Your task to perform on an android device: What's on my calendar today? Image 0: 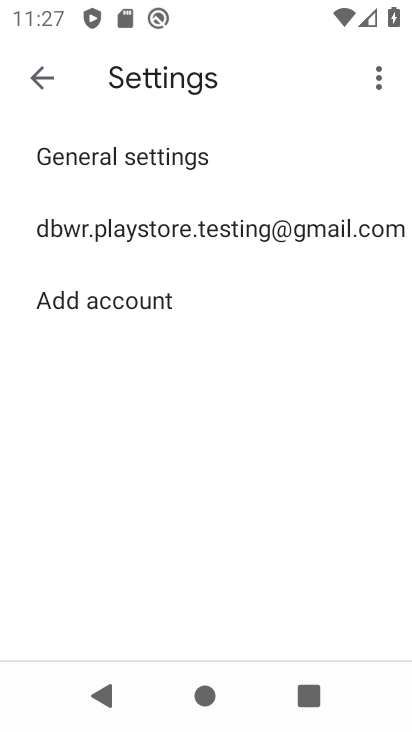
Step 0: press home button
Your task to perform on an android device: What's on my calendar today? Image 1: 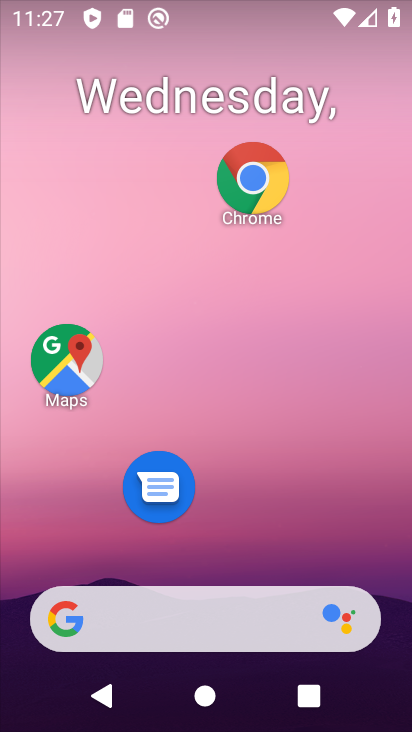
Step 1: drag from (300, 304) to (297, 44)
Your task to perform on an android device: What's on my calendar today? Image 2: 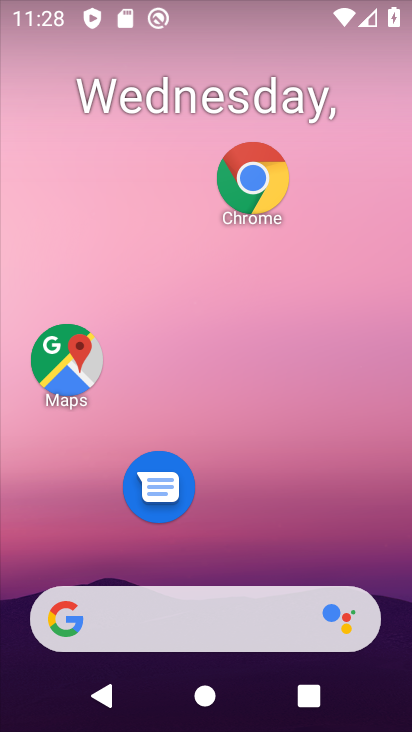
Step 2: drag from (273, 404) to (221, 4)
Your task to perform on an android device: What's on my calendar today? Image 3: 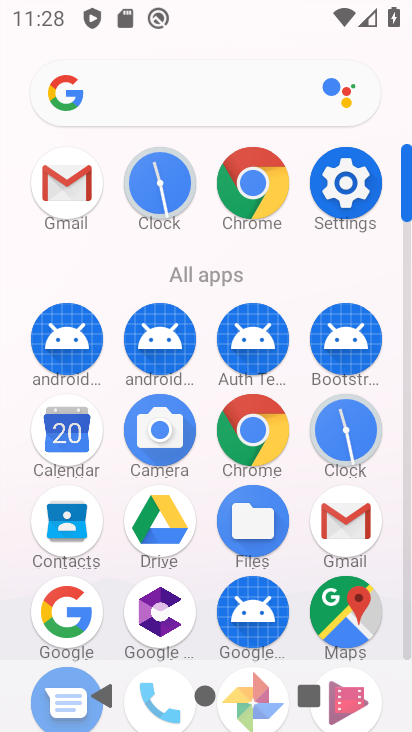
Step 3: click (71, 437)
Your task to perform on an android device: What's on my calendar today? Image 4: 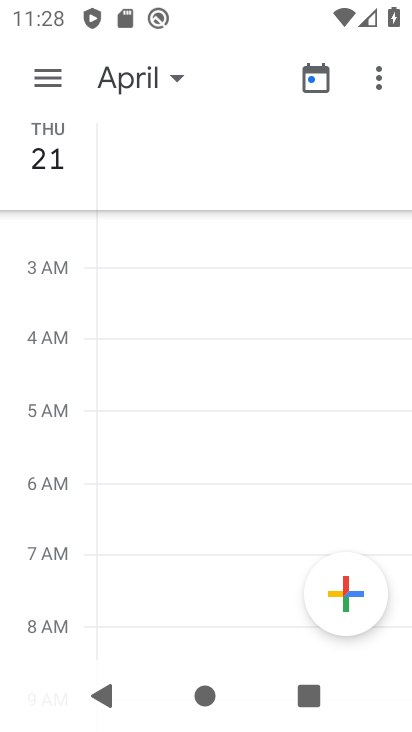
Step 4: click (45, 74)
Your task to perform on an android device: What's on my calendar today? Image 5: 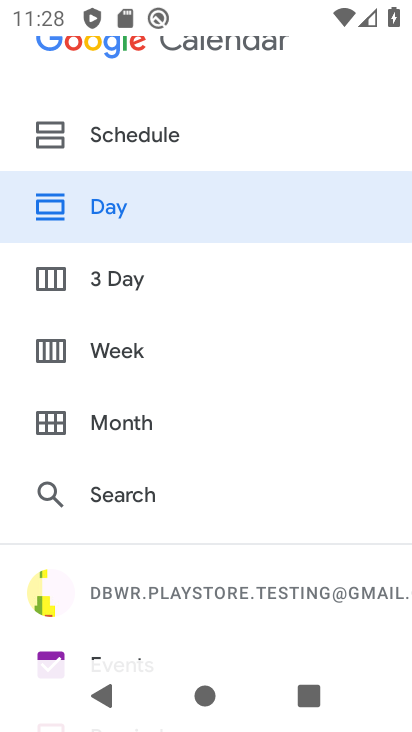
Step 5: click (123, 135)
Your task to perform on an android device: What's on my calendar today? Image 6: 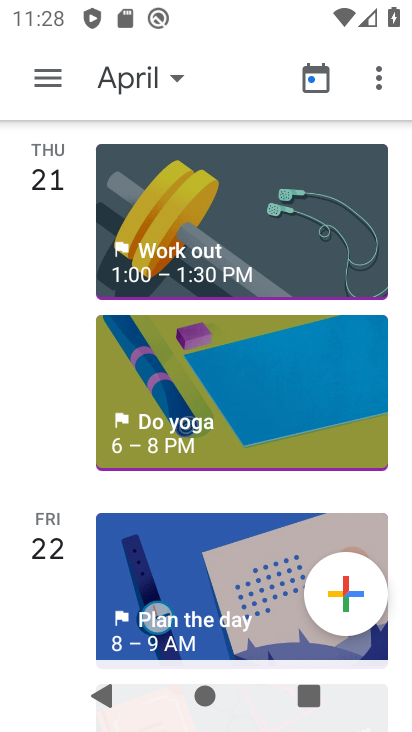
Step 6: drag from (247, 277) to (237, 364)
Your task to perform on an android device: What's on my calendar today? Image 7: 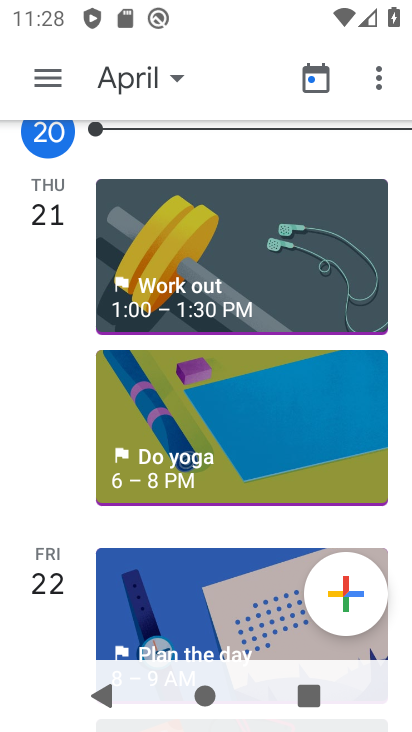
Step 7: click (50, 76)
Your task to perform on an android device: What's on my calendar today? Image 8: 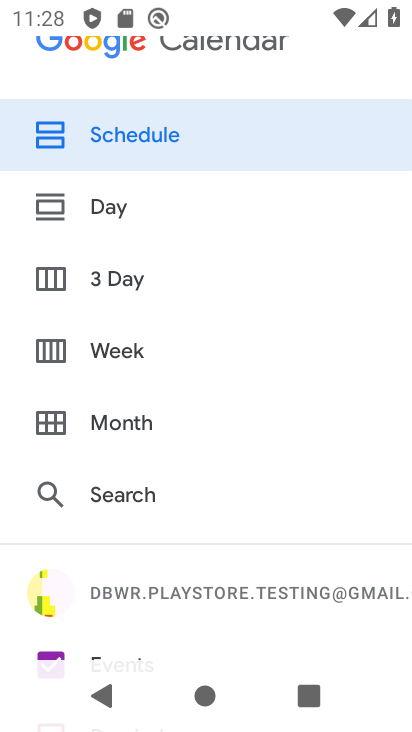
Step 8: drag from (166, 612) to (183, 109)
Your task to perform on an android device: What's on my calendar today? Image 9: 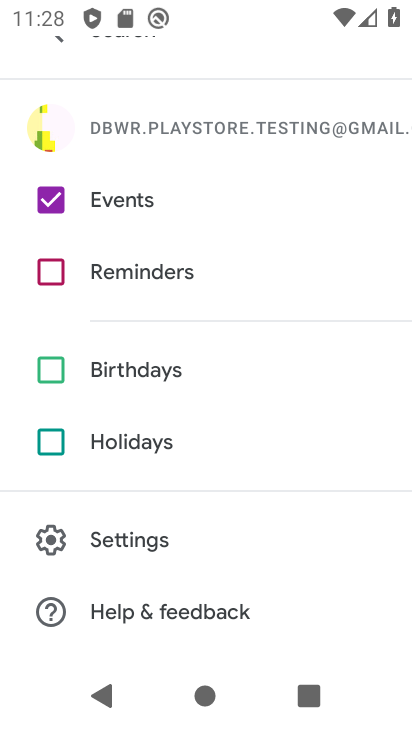
Step 9: click (63, 263)
Your task to perform on an android device: What's on my calendar today? Image 10: 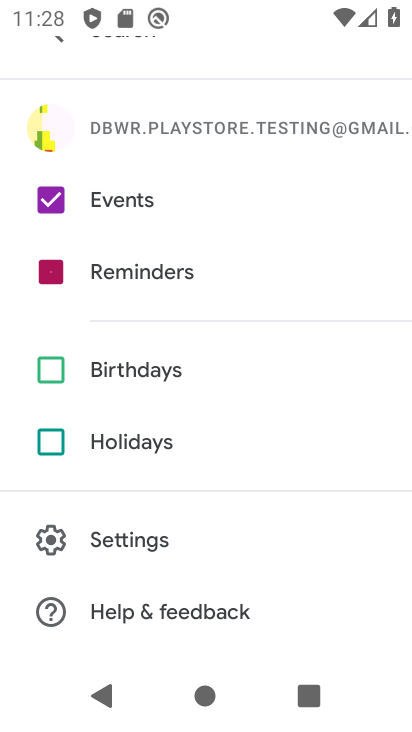
Step 10: click (51, 366)
Your task to perform on an android device: What's on my calendar today? Image 11: 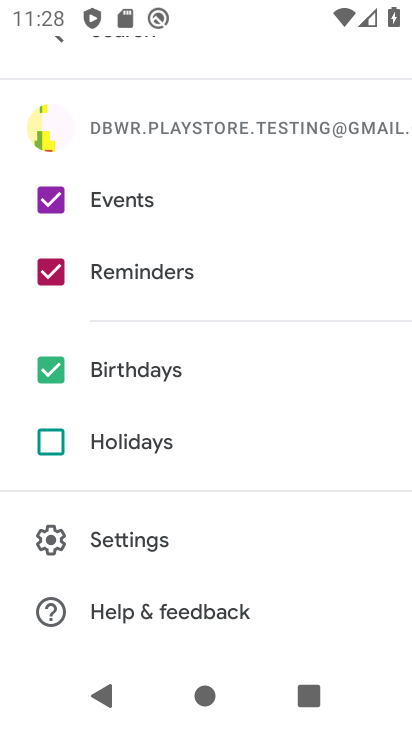
Step 11: click (54, 440)
Your task to perform on an android device: What's on my calendar today? Image 12: 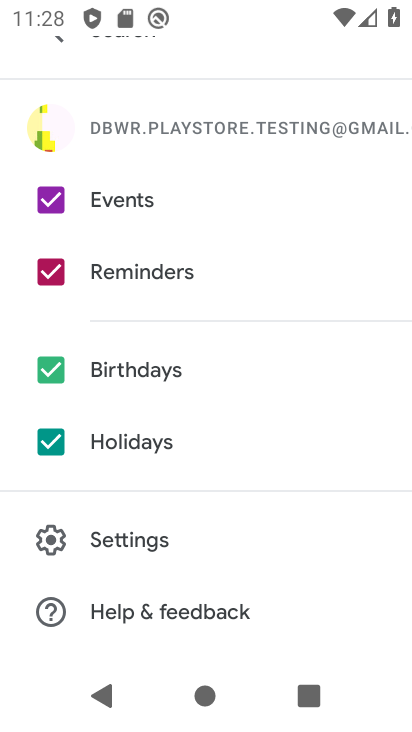
Step 12: drag from (252, 178) to (239, 588)
Your task to perform on an android device: What's on my calendar today? Image 13: 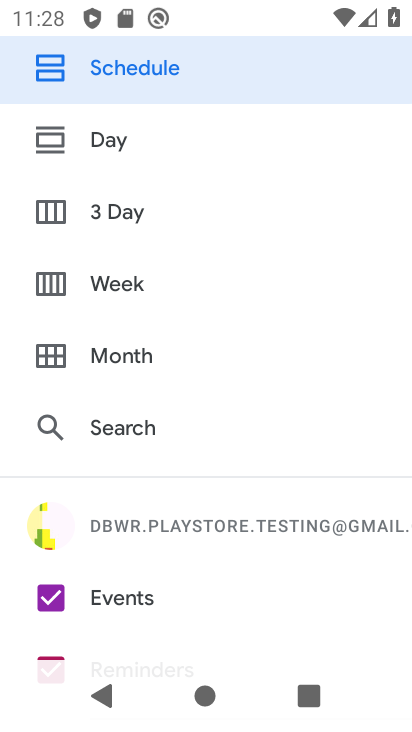
Step 13: click (220, 70)
Your task to perform on an android device: What's on my calendar today? Image 14: 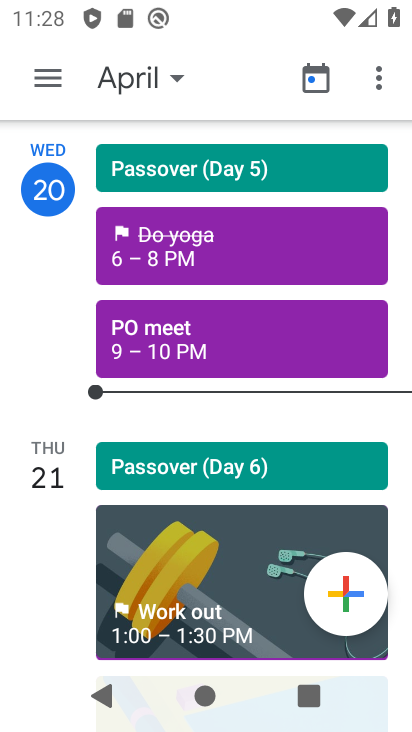
Step 14: task complete